Your task to perform on an android device: Go to Maps Image 0: 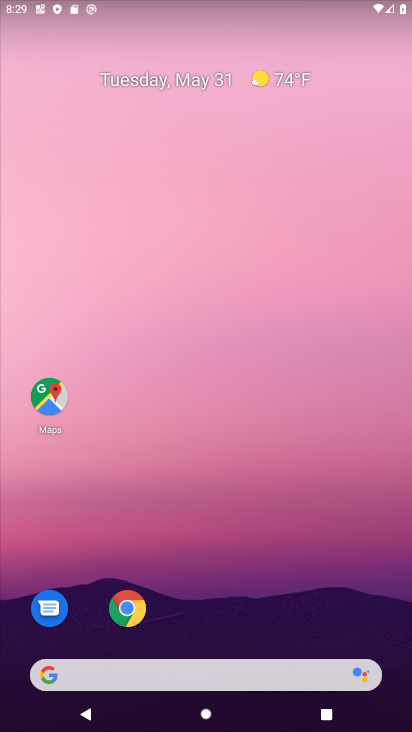
Step 0: drag from (242, 649) to (233, 93)
Your task to perform on an android device: Go to Maps Image 1: 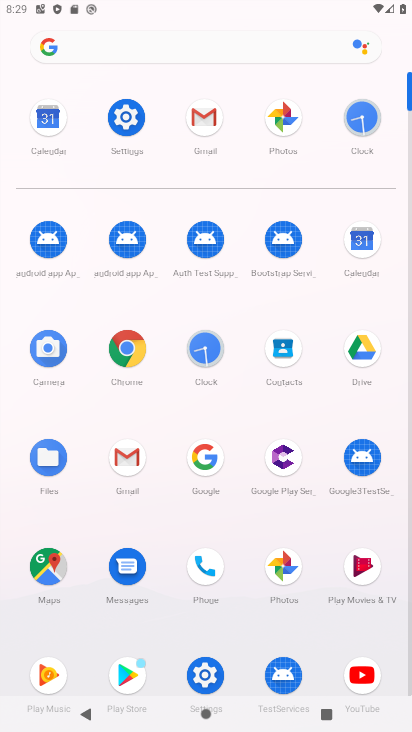
Step 1: click (48, 555)
Your task to perform on an android device: Go to Maps Image 2: 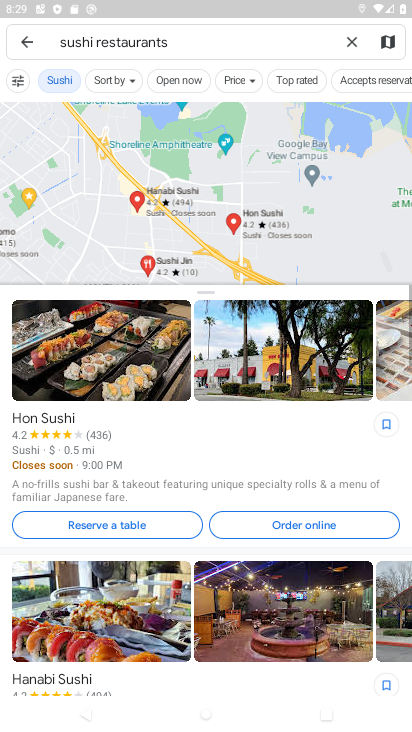
Step 2: click (27, 41)
Your task to perform on an android device: Go to Maps Image 3: 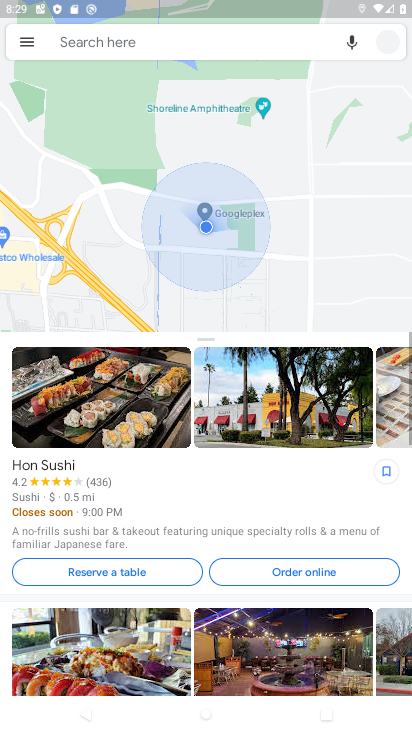
Step 3: task complete